Your task to perform on an android device: turn off location history Image 0: 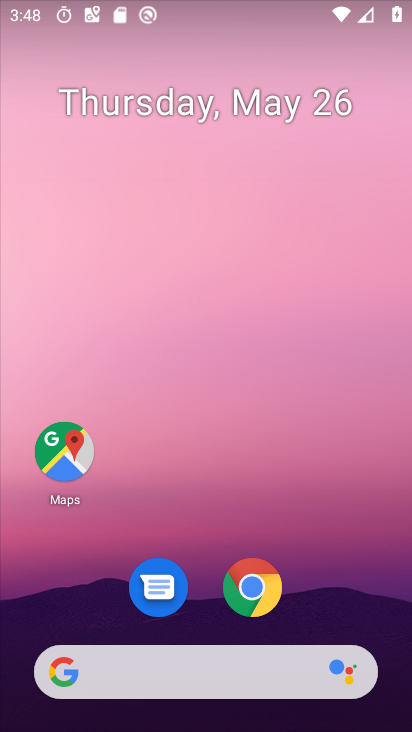
Step 0: drag from (216, 709) to (235, 411)
Your task to perform on an android device: turn off location history Image 1: 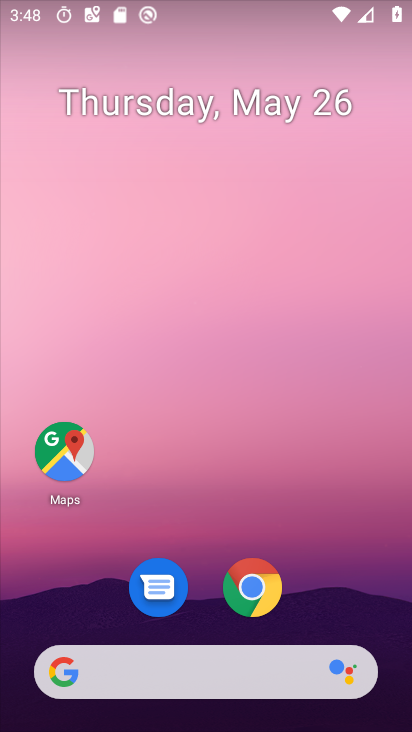
Step 1: drag from (239, 673) to (239, 357)
Your task to perform on an android device: turn off location history Image 2: 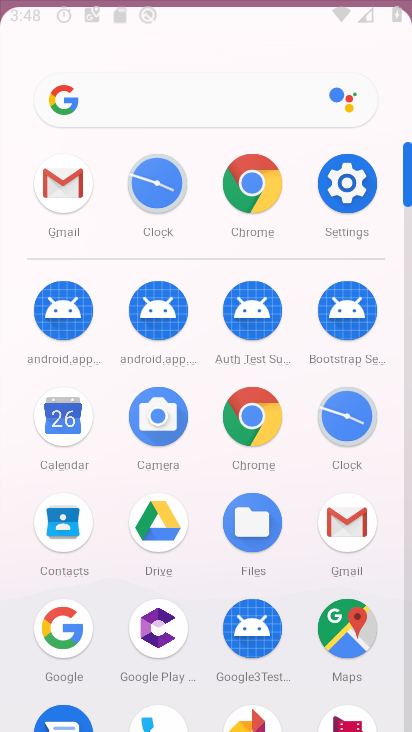
Step 2: drag from (277, 716) to (205, 356)
Your task to perform on an android device: turn off location history Image 3: 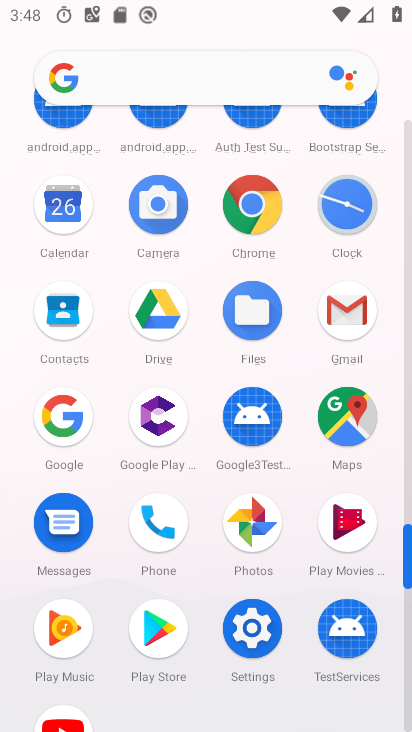
Step 3: drag from (266, 593) to (220, 386)
Your task to perform on an android device: turn off location history Image 4: 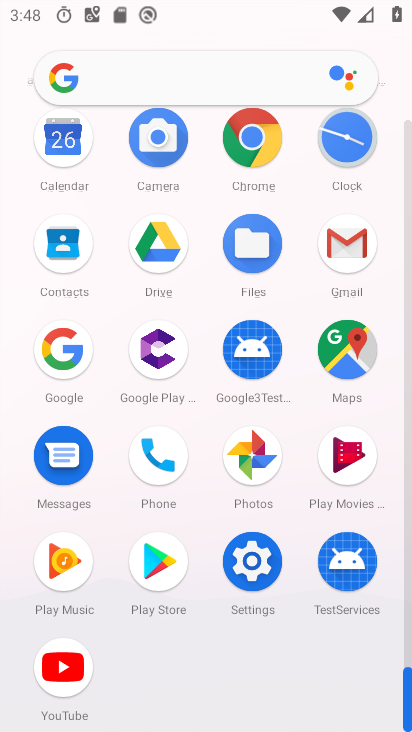
Step 4: drag from (320, 528) to (293, 291)
Your task to perform on an android device: turn off location history Image 5: 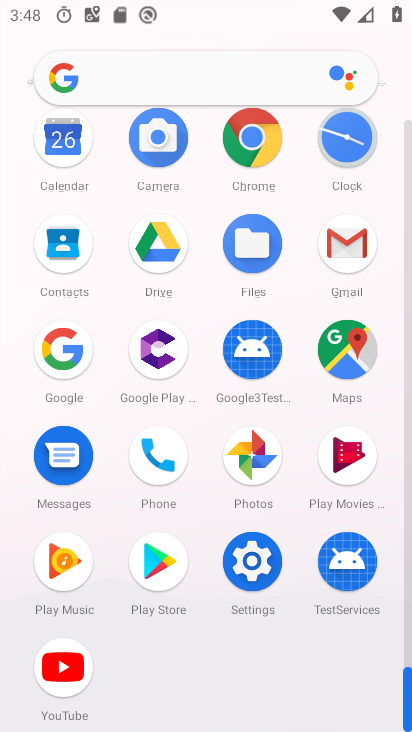
Step 5: drag from (311, 570) to (324, 260)
Your task to perform on an android device: turn off location history Image 6: 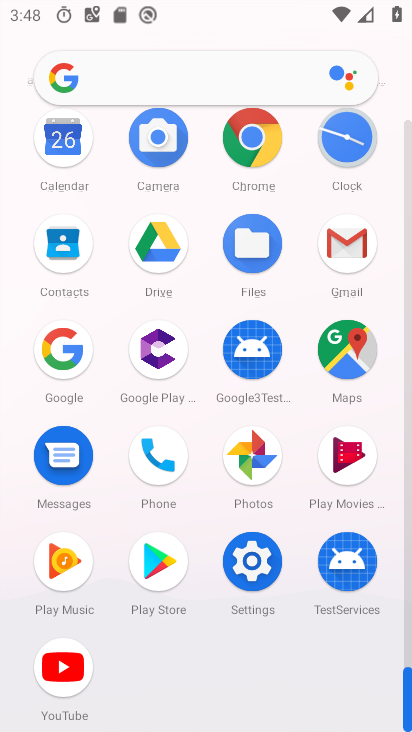
Step 6: drag from (201, 333) to (252, 551)
Your task to perform on an android device: turn off location history Image 7: 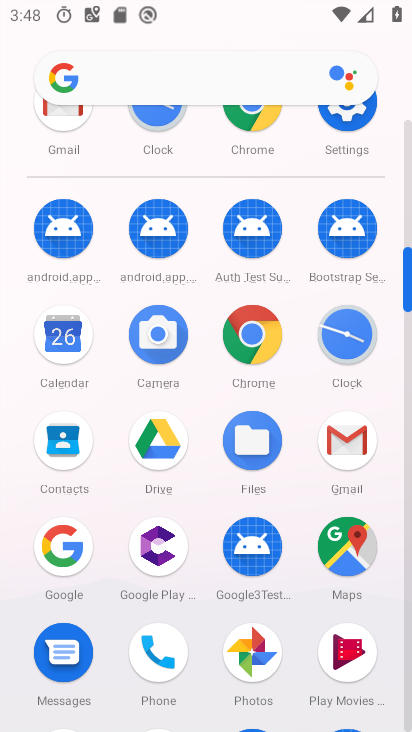
Step 7: drag from (211, 336) to (217, 506)
Your task to perform on an android device: turn off location history Image 8: 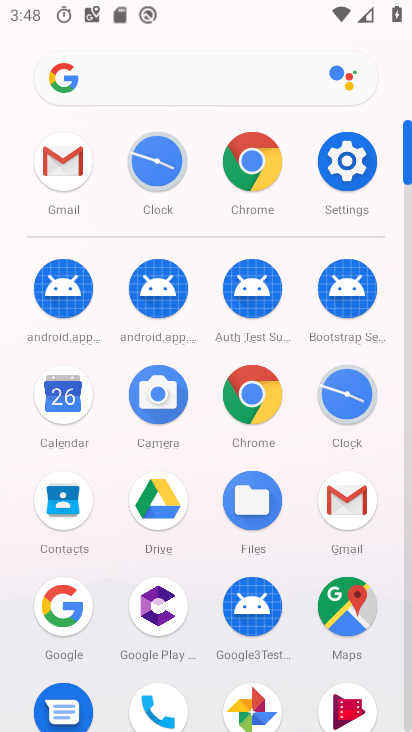
Step 8: drag from (213, 348) to (246, 560)
Your task to perform on an android device: turn off location history Image 9: 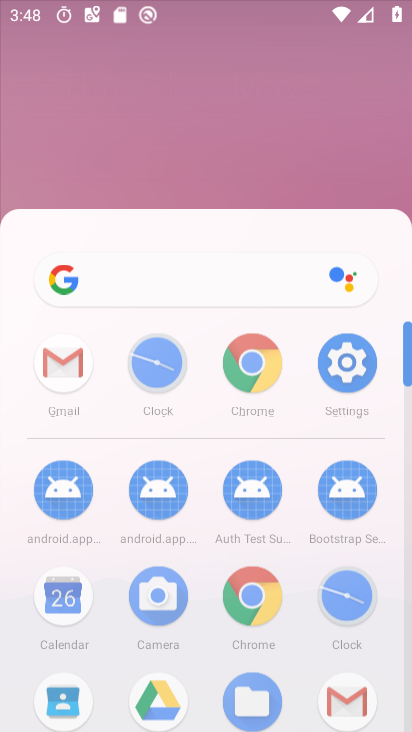
Step 9: drag from (219, 363) to (242, 584)
Your task to perform on an android device: turn off location history Image 10: 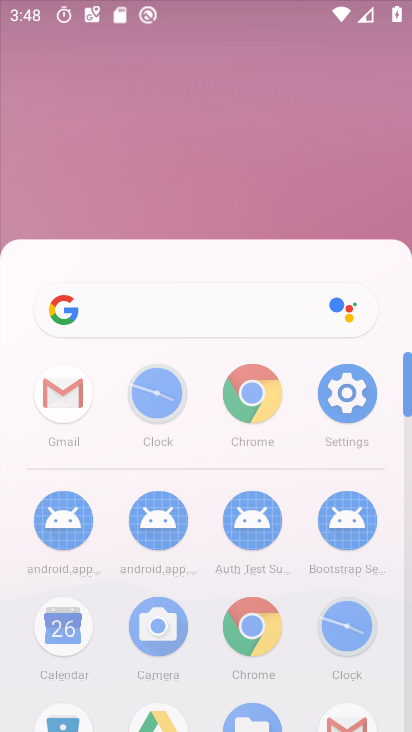
Step 10: drag from (221, 352) to (244, 611)
Your task to perform on an android device: turn off location history Image 11: 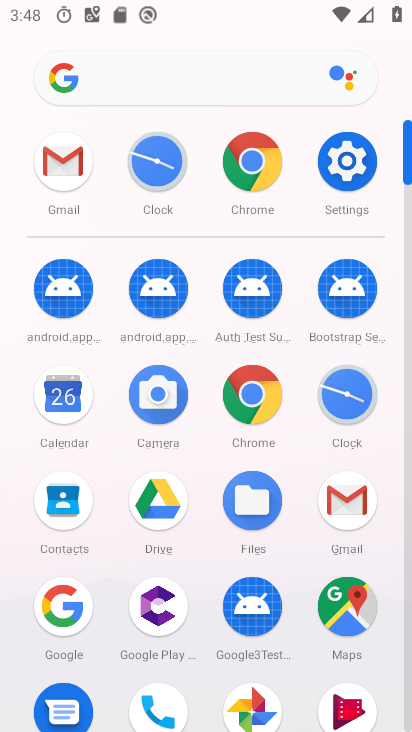
Step 11: click (344, 151)
Your task to perform on an android device: turn off location history Image 12: 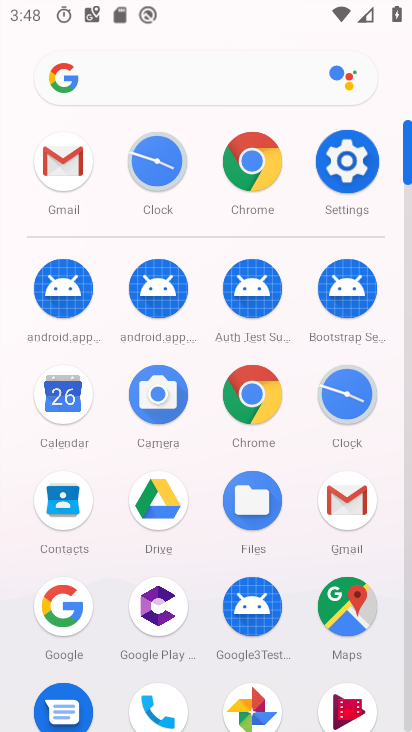
Step 12: click (344, 152)
Your task to perform on an android device: turn off location history Image 13: 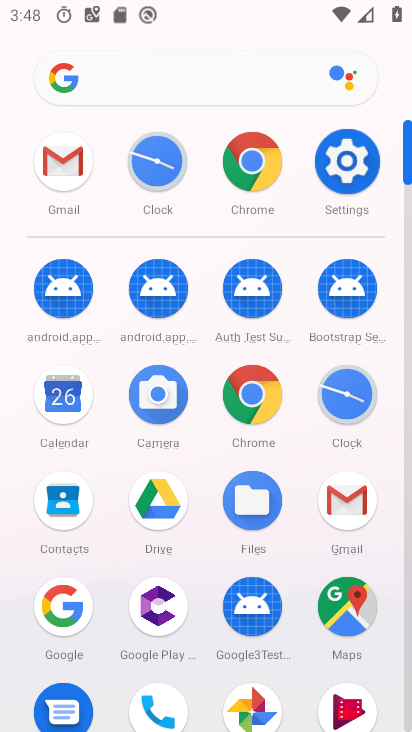
Step 13: click (344, 154)
Your task to perform on an android device: turn off location history Image 14: 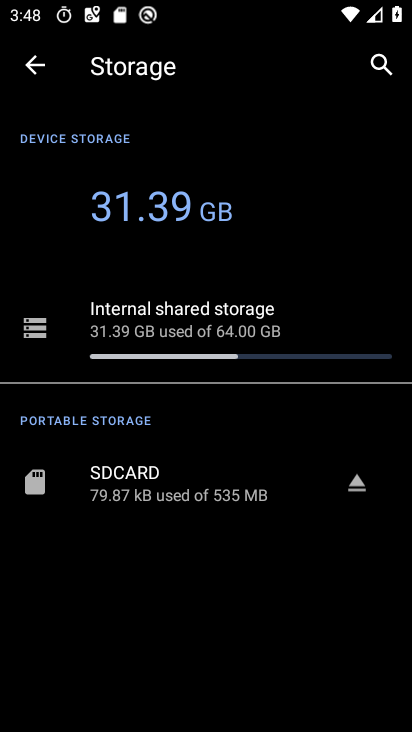
Step 14: click (25, 70)
Your task to perform on an android device: turn off location history Image 15: 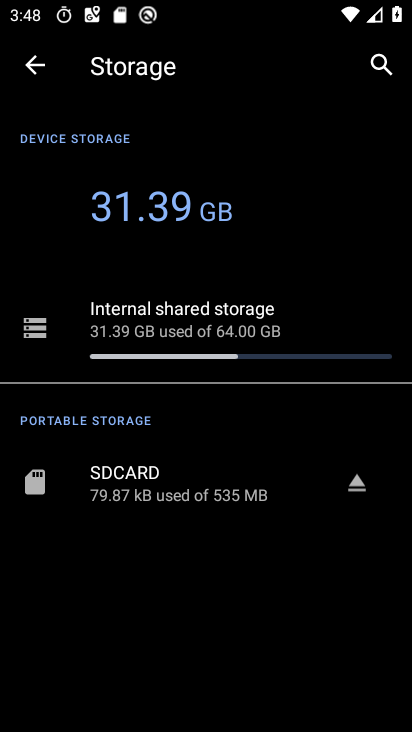
Step 15: click (25, 70)
Your task to perform on an android device: turn off location history Image 16: 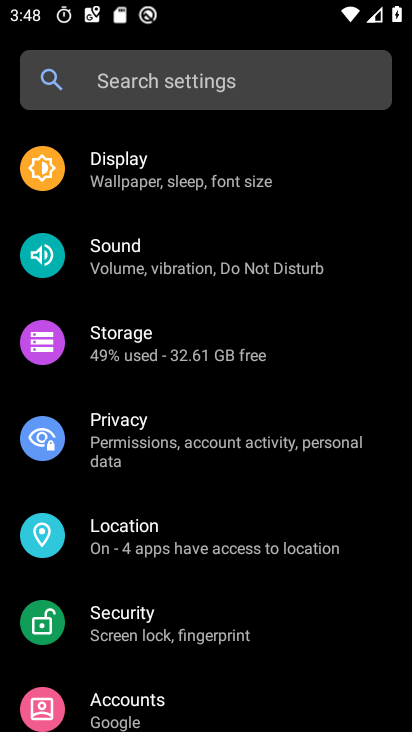
Step 16: click (166, 545)
Your task to perform on an android device: turn off location history Image 17: 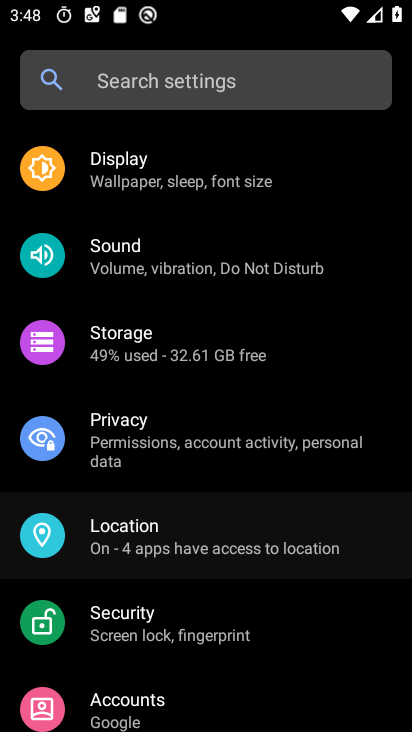
Step 17: click (165, 546)
Your task to perform on an android device: turn off location history Image 18: 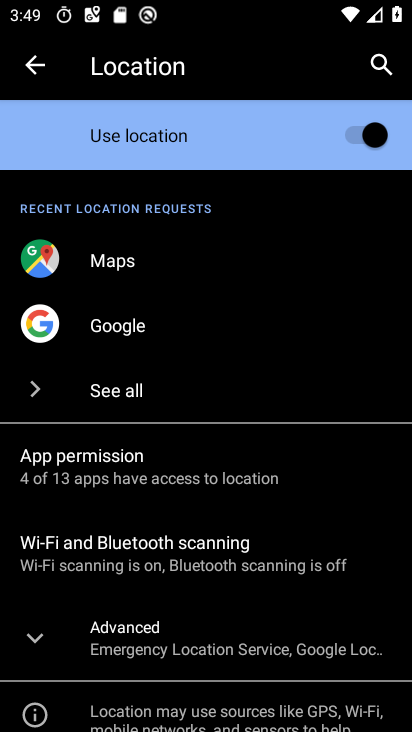
Step 18: drag from (212, 609) to (213, 382)
Your task to perform on an android device: turn off location history Image 19: 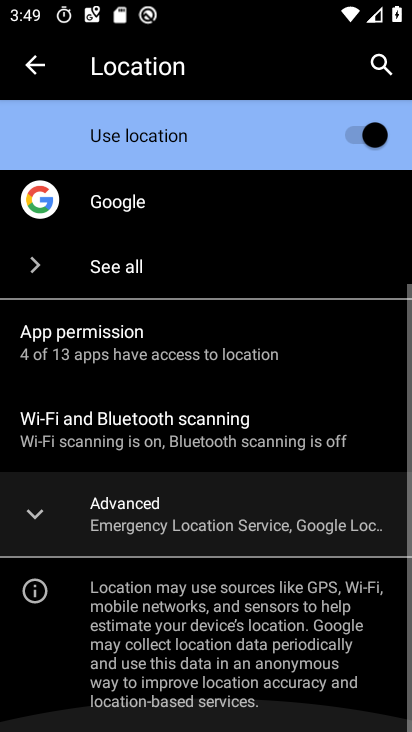
Step 19: drag from (266, 589) to (240, 256)
Your task to perform on an android device: turn off location history Image 20: 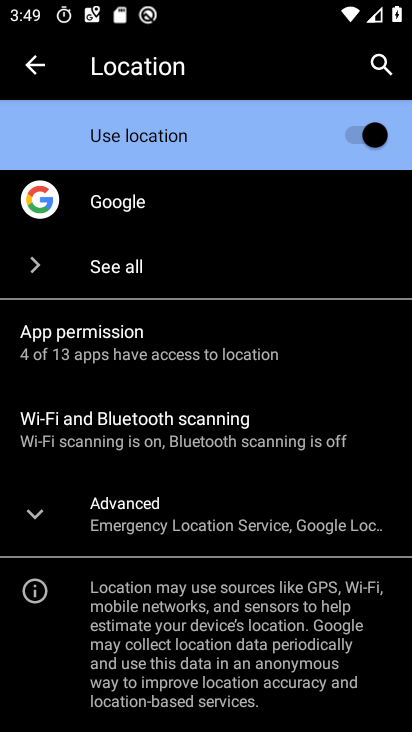
Step 20: click (145, 532)
Your task to perform on an android device: turn off location history Image 21: 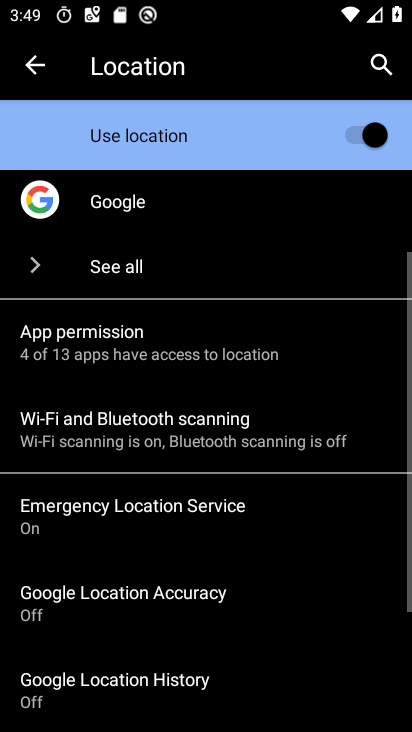
Step 21: drag from (145, 623) to (165, 383)
Your task to perform on an android device: turn off location history Image 22: 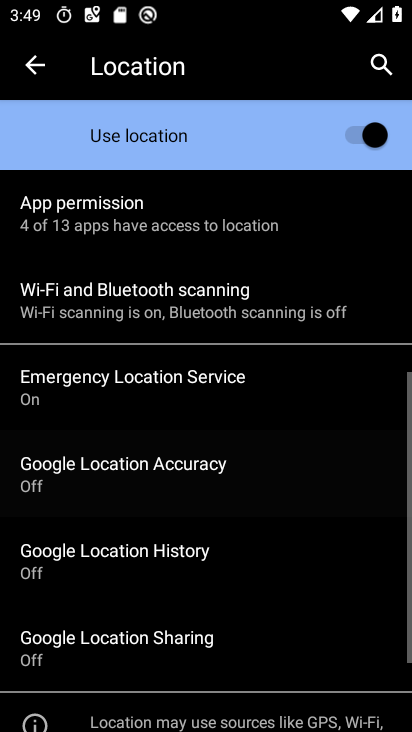
Step 22: drag from (212, 554) to (231, 373)
Your task to perform on an android device: turn off location history Image 23: 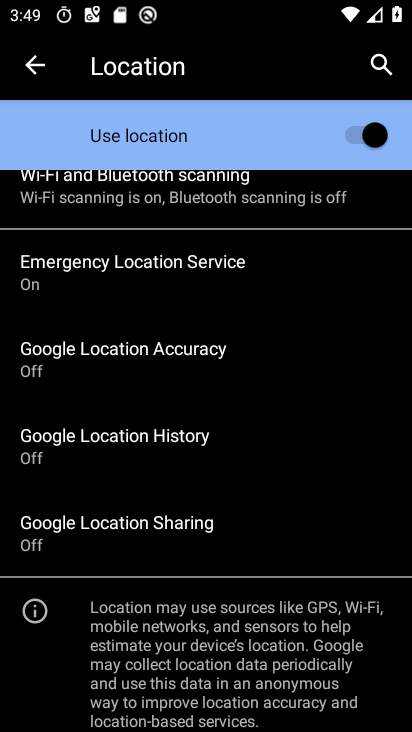
Step 23: click (68, 428)
Your task to perform on an android device: turn off location history Image 24: 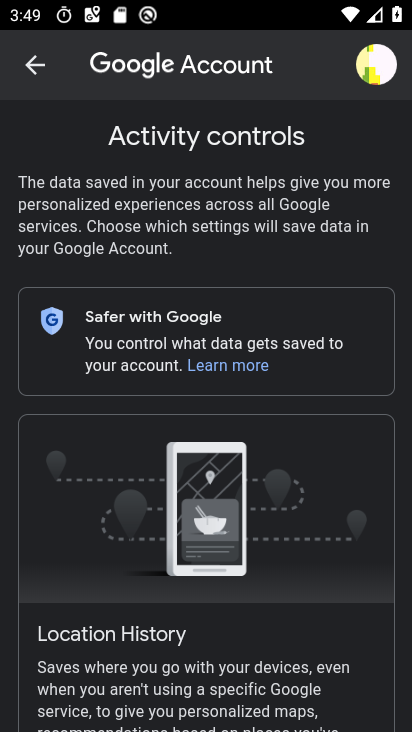
Step 24: drag from (246, 522) to (232, 216)
Your task to perform on an android device: turn off location history Image 25: 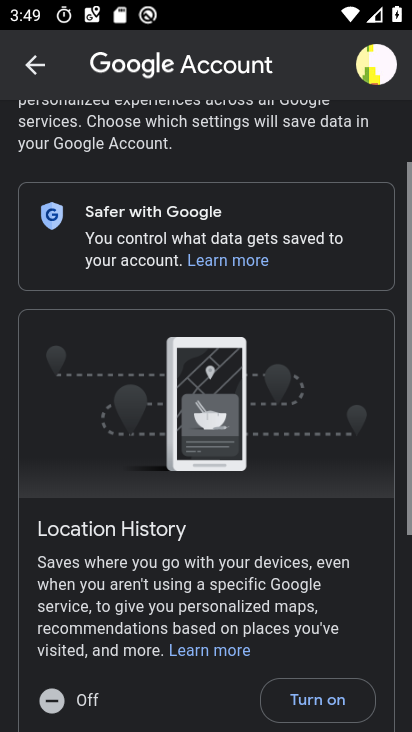
Step 25: drag from (257, 518) to (274, 301)
Your task to perform on an android device: turn off location history Image 26: 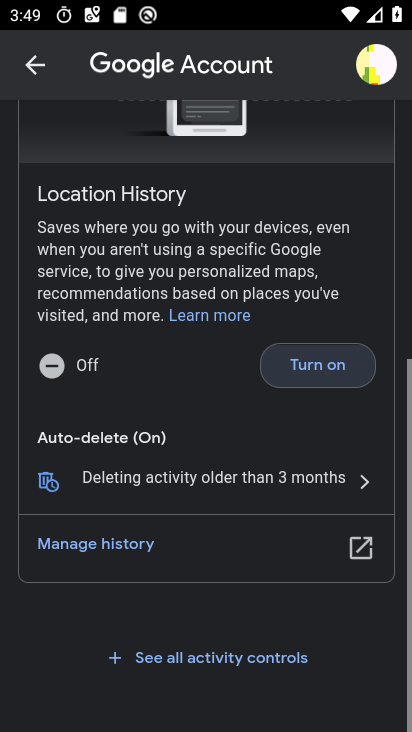
Step 26: drag from (295, 424) to (307, 314)
Your task to perform on an android device: turn off location history Image 27: 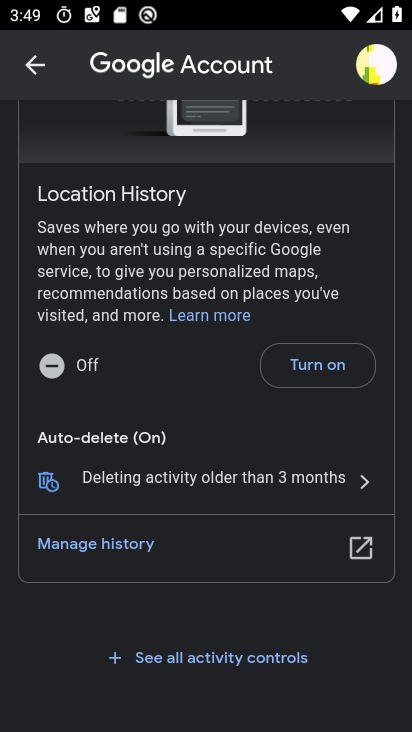
Step 27: click (321, 372)
Your task to perform on an android device: turn off location history Image 28: 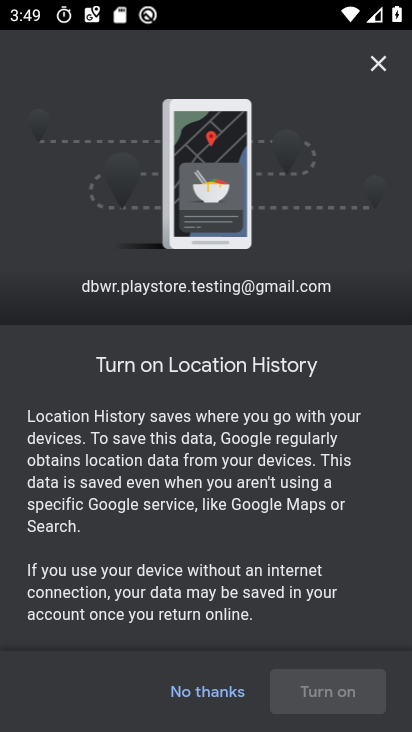
Step 28: task complete